Your task to perform on an android device: check storage Image 0: 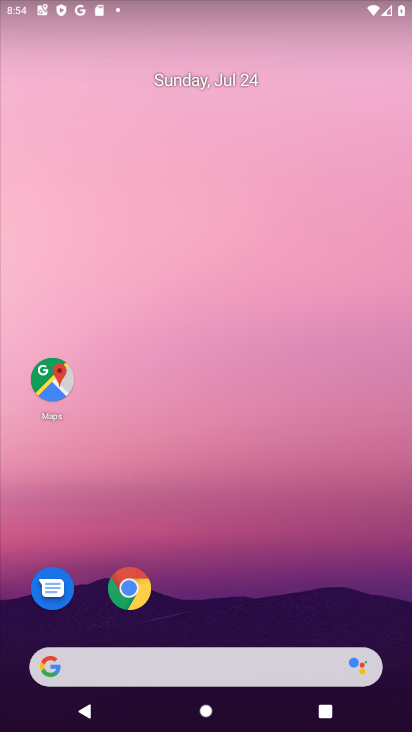
Step 0: drag from (249, 331) to (252, 201)
Your task to perform on an android device: check storage Image 1: 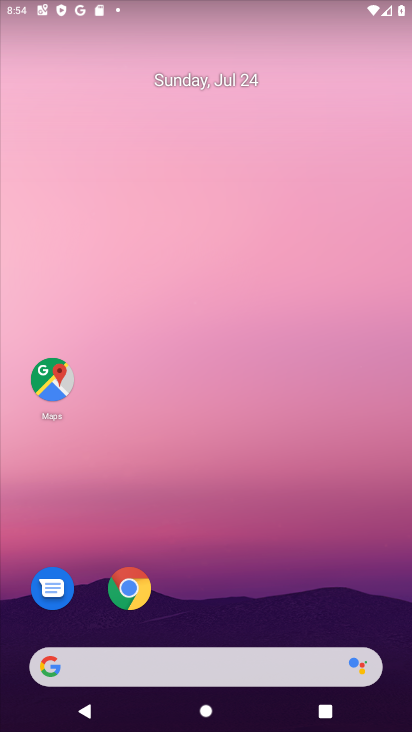
Step 1: drag from (207, 668) to (174, 93)
Your task to perform on an android device: check storage Image 2: 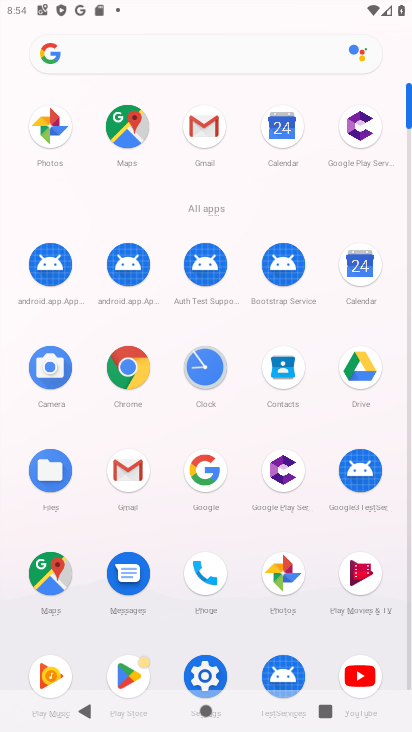
Step 2: click (199, 658)
Your task to perform on an android device: check storage Image 3: 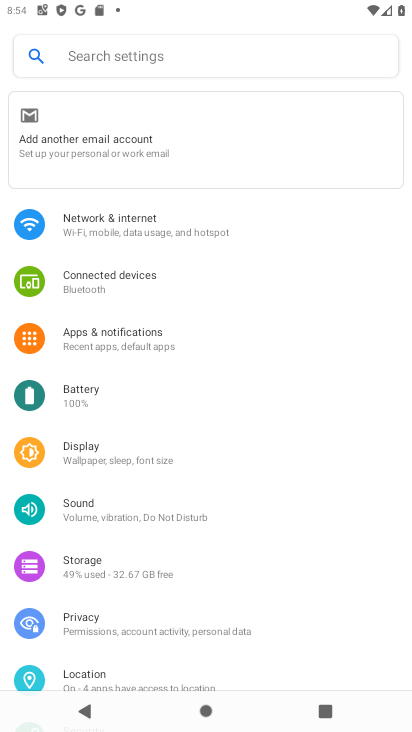
Step 3: click (99, 570)
Your task to perform on an android device: check storage Image 4: 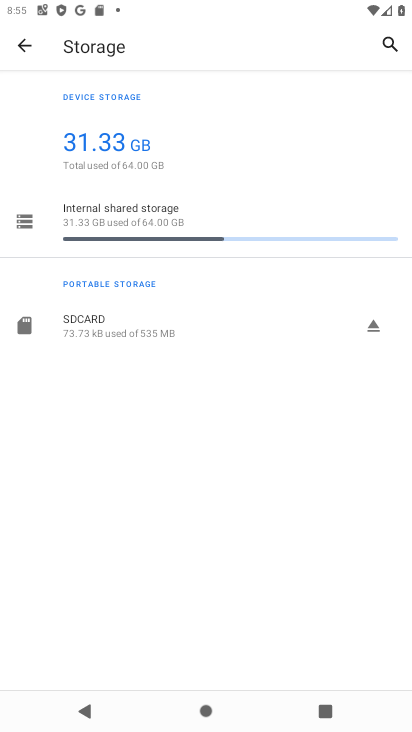
Step 4: task complete